Your task to perform on an android device: uninstall "Pluto TV - Live TV and Movies" Image 0: 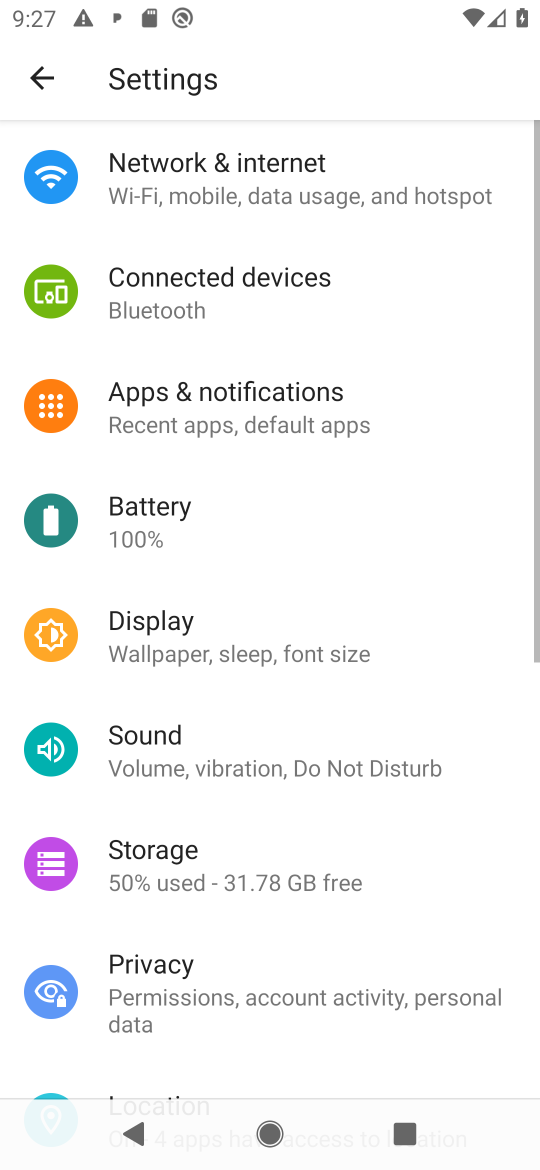
Step 0: press home button
Your task to perform on an android device: uninstall "Pluto TV - Live TV and Movies" Image 1: 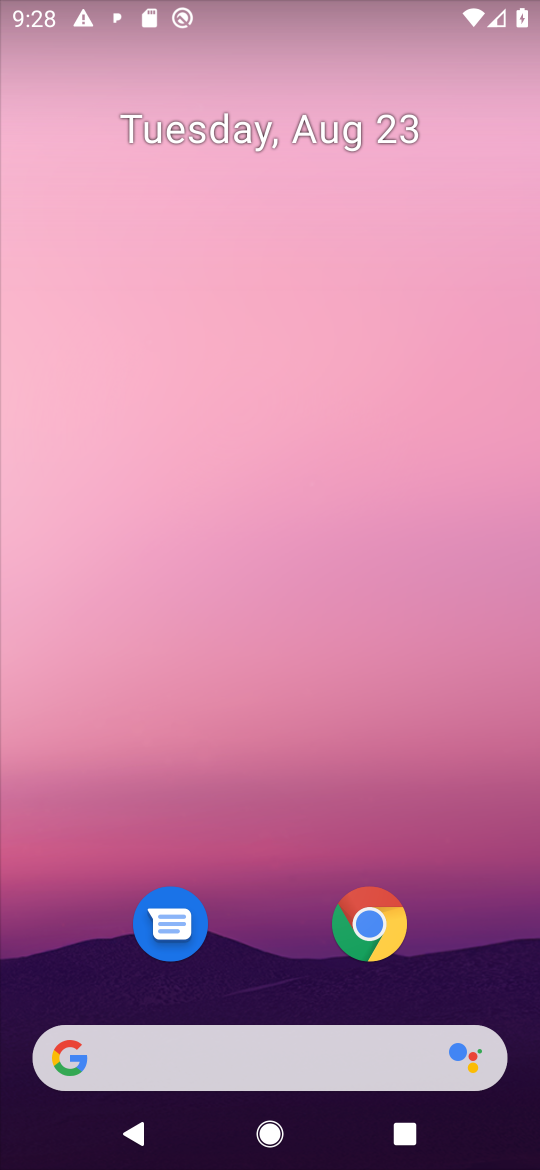
Step 1: drag from (468, 863) to (461, 86)
Your task to perform on an android device: uninstall "Pluto TV - Live TV and Movies" Image 2: 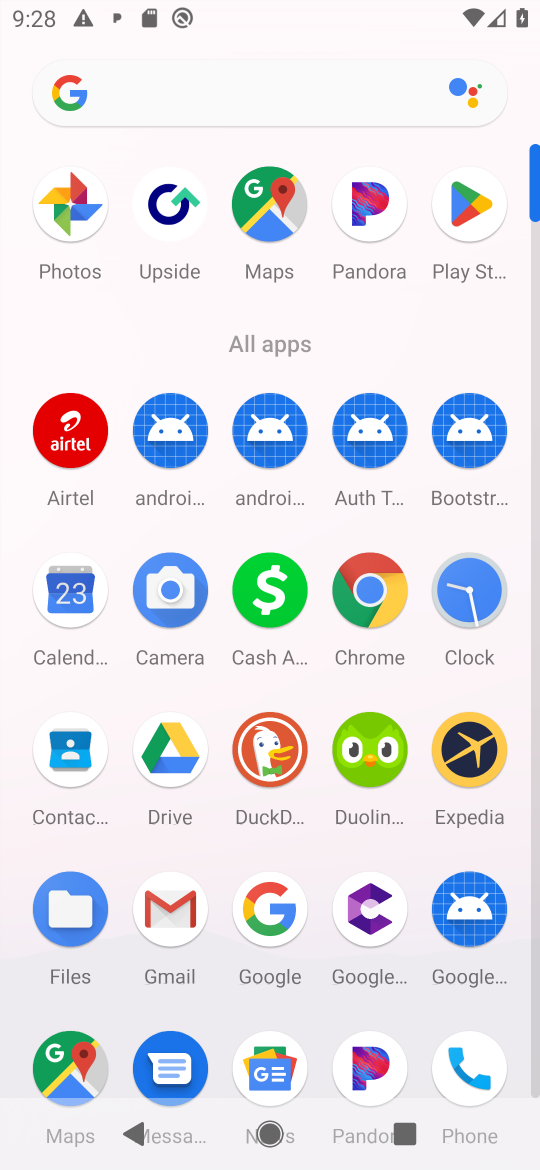
Step 2: click (472, 204)
Your task to perform on an android device: uninstall "Pluto TV - Live TV and Movies" Image 3: 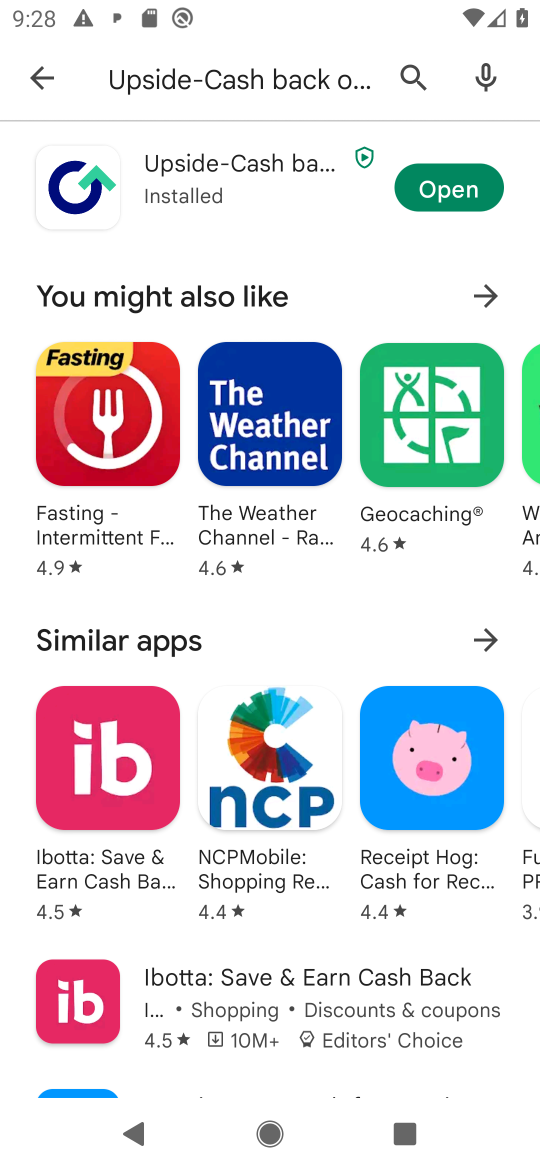
Step 3: press back button
Your task to perform on an android device: uninstall "Pluto TV - Live TV and Movies" Image 4: 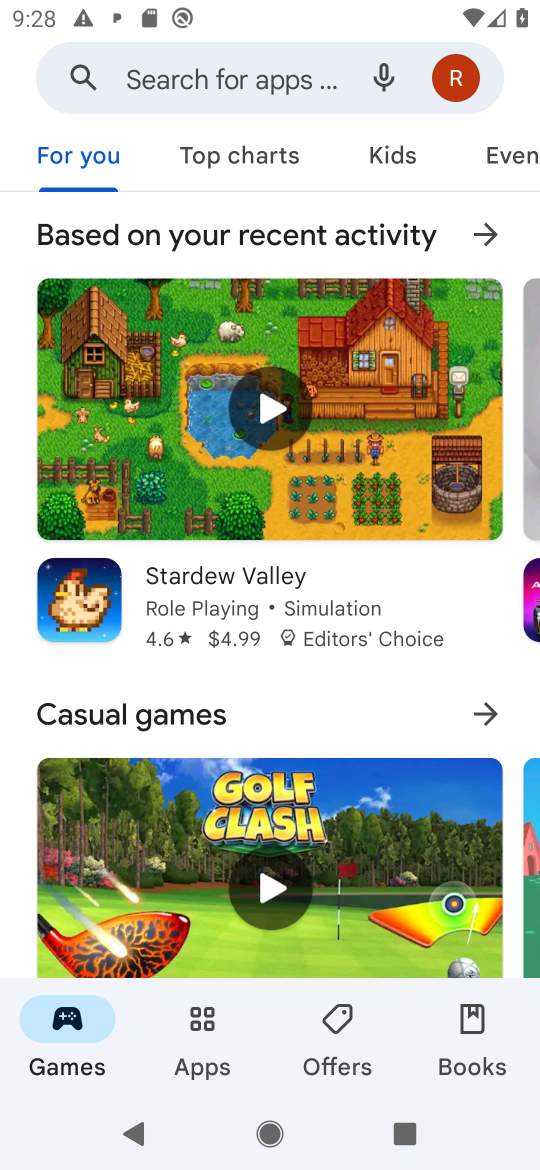
Step 4: click (261, 77)
Your task to perform on an android device: uninstall "Pluto TV - Live TV and Movies" Image 5: 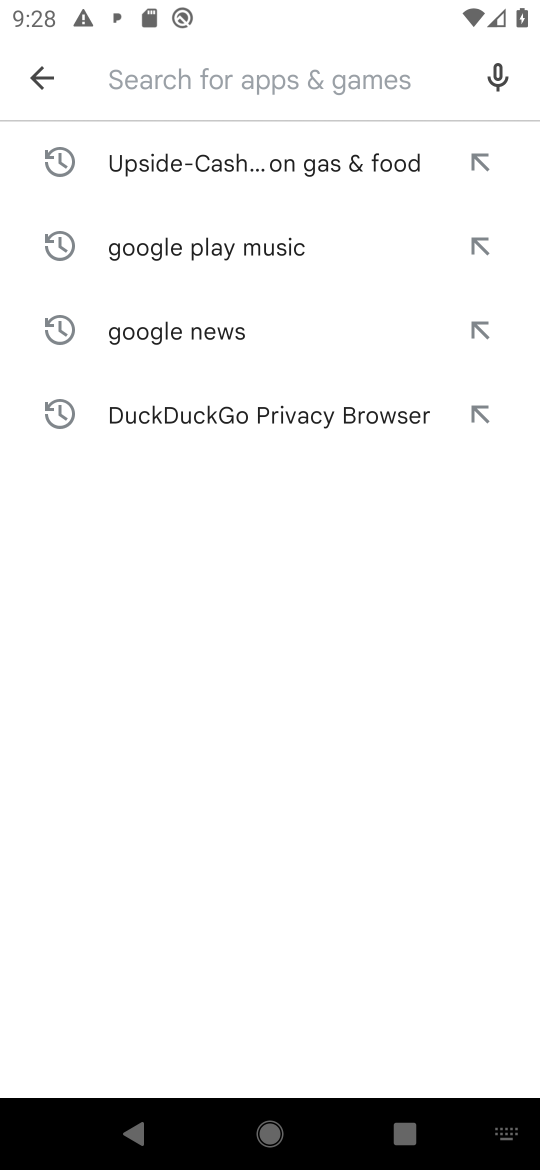
Step 5: press enter
Your task to perform on an android device: uninstall "Pluto TV - Live TV and Movies" Image 6: 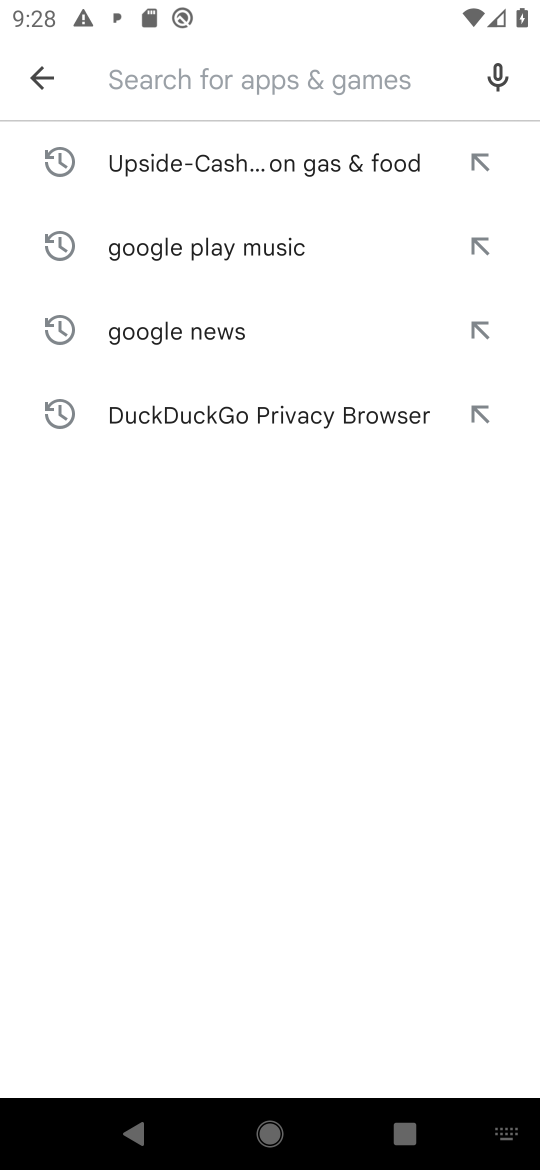
Step 6: type "Pluto TV - Live TV and Movies"
Your task to perform on an android device: uninstall "Pluto TV - Live TV and Movies" Image 7: 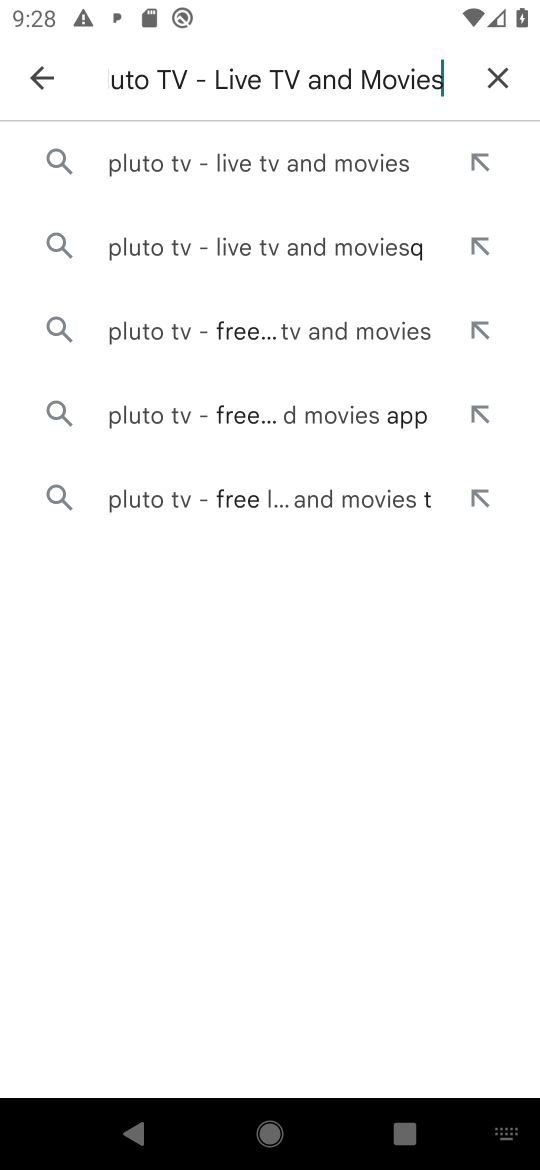
Step 7: click (294, 164)
Your task to perform on an android device: uninstall "Pluto TV - Live TV and Movies" Image 8: 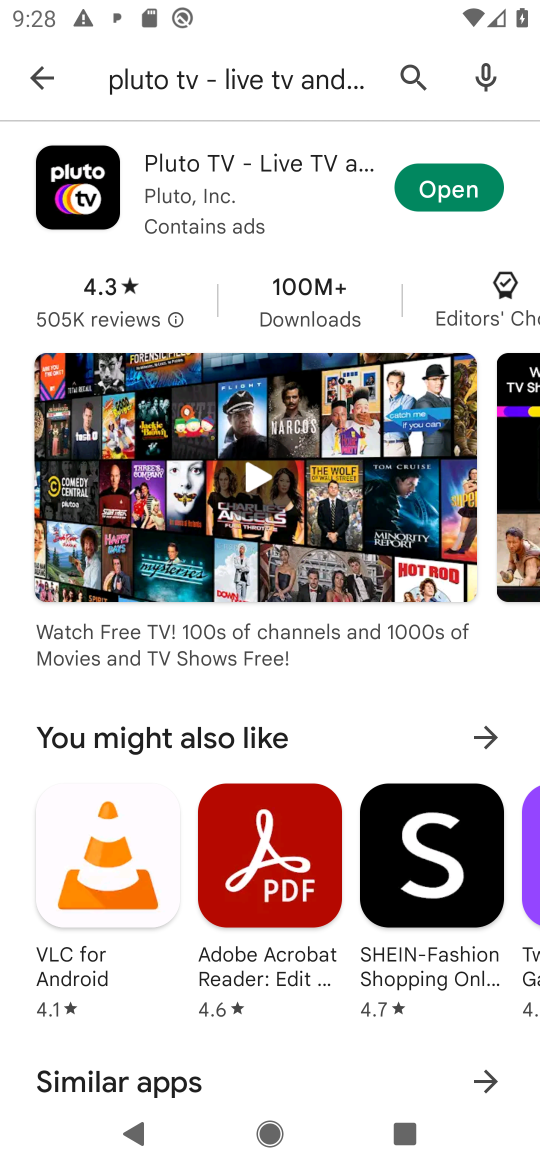
Step 8: task complete